Your task to perform on an android device: open wifi settings Image 0: 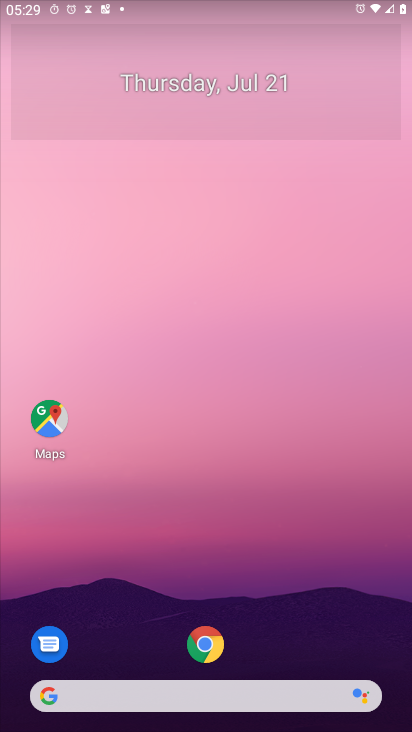
Step 0: press home button
Your task to perform on an android device: open wifi settings Image 1: 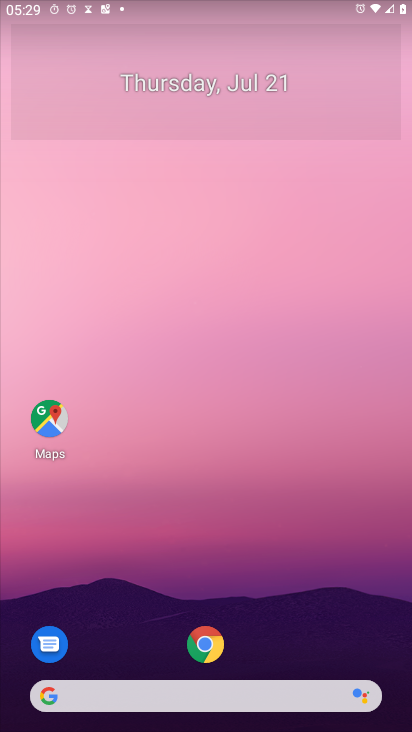
Step 1: drag from (316, 632) to (288, 77)
Your task to perform on an android device: open wifi settings Image 2: 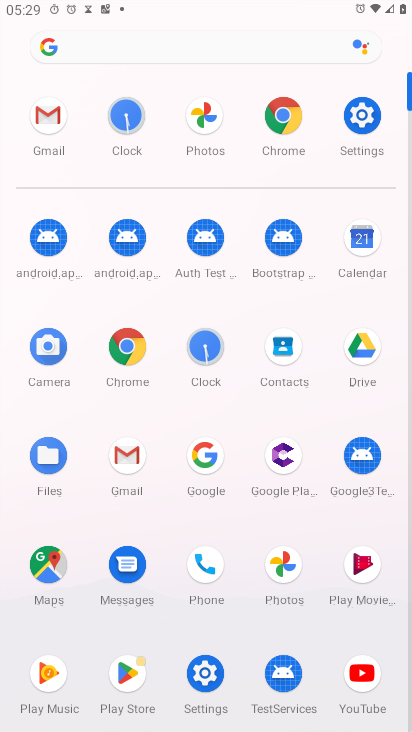
Step 2: click (371, 110)
Your task to perform on an android device: open wifi settings Image 3: 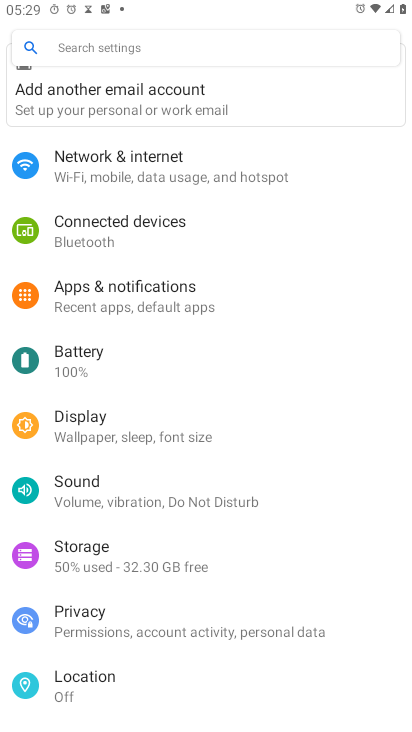
Step 3: click (160, 163)
Your task to perform on an android device: open wifi settings Image 4: 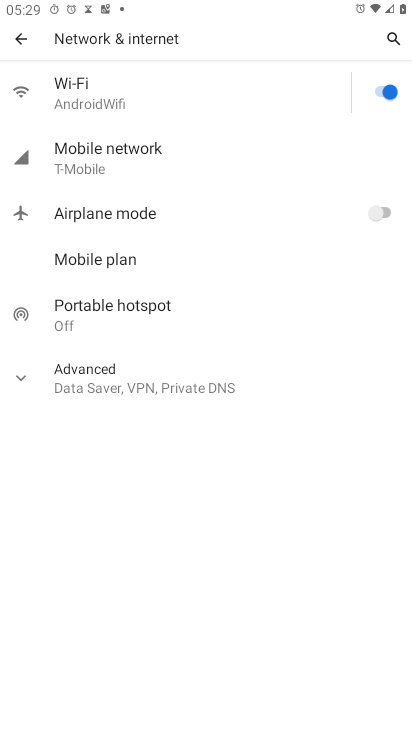
Step 4: task complete